Your task to perform on an android device: turn on improve location accuracy Image 0: 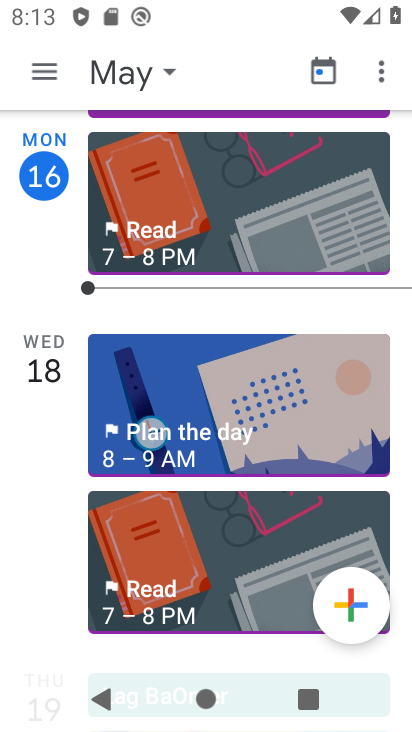
Step 0: press home button
Your task to perform on an android device: turn on improve location accuracy Image 1: 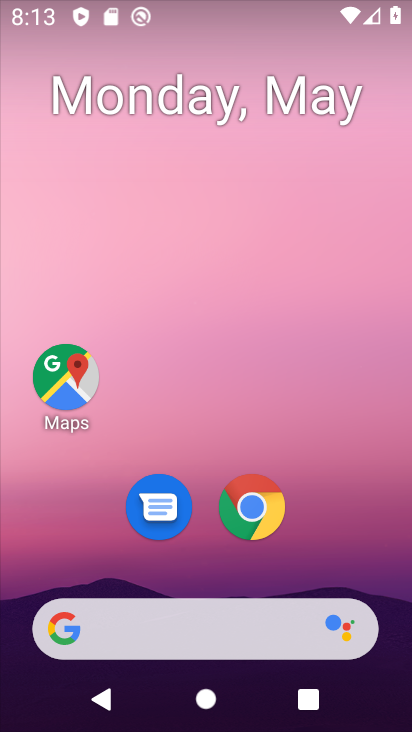
Step 1: drag from (219, 570) to (247, 7)
Your task to perform on an android device: turn on improve location accuracy Image 2: 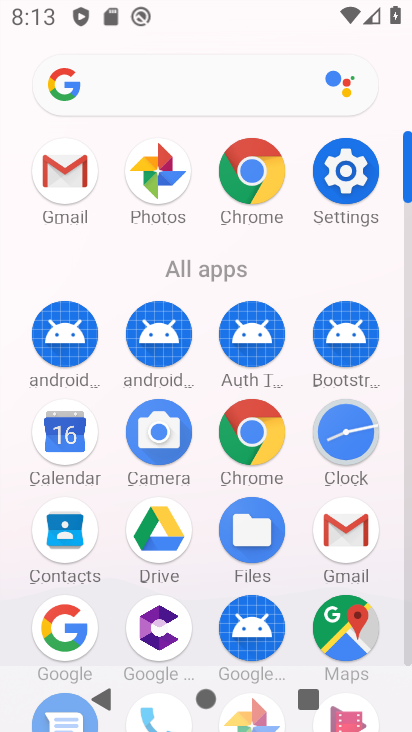
Step 2: click (352, 192)
Your task to perform on an android device: turn on improve location accuracy Image 3: 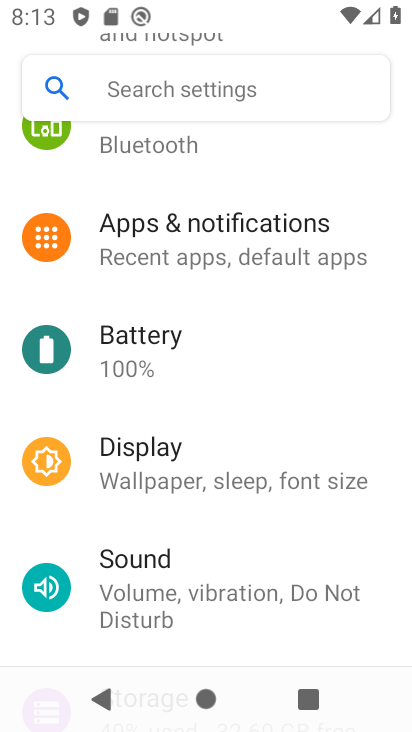
Step 3: drag from (183, 543) to (304, 94)
Your task to perform on an android device: turn on improve location accuracy Image 4: 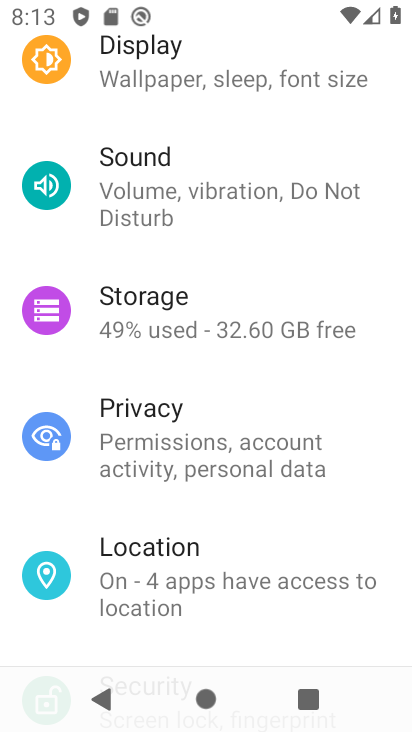
Step 4: click (193, 543)
Your task to perform on an android device: turn on improve location accuracy Image 5: 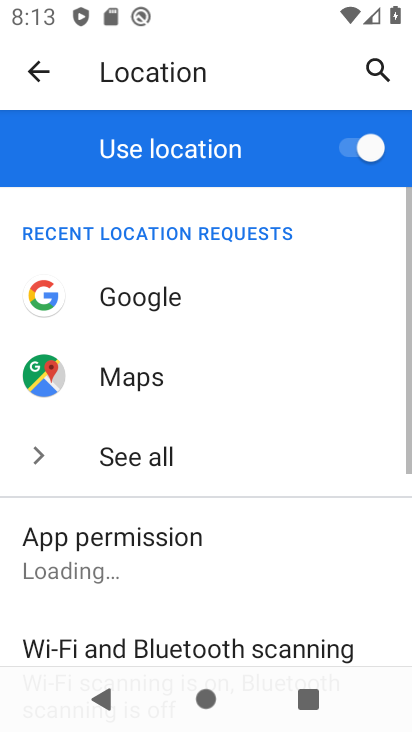
Step 5: drag from (204, 586) to (262, 291)
Your task to perform on an android device: turn on improve location accuracy Image 6: 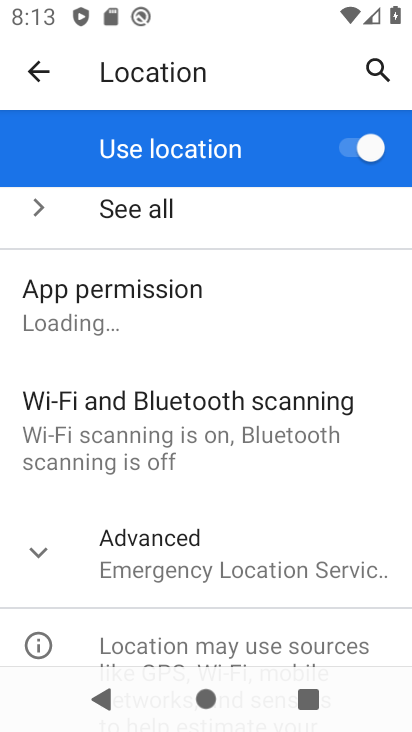
Step 6: click (199, 560)
Your task to perform on an android device: turn on improve location accuracy Image 7: 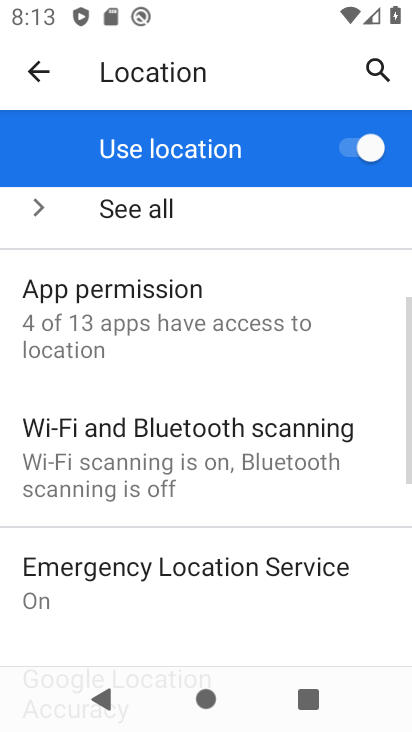
Step 7: drag from (216, 540) to (249, 260)
Your task to perform on an android device: turn on improve location accuracy Image 8: 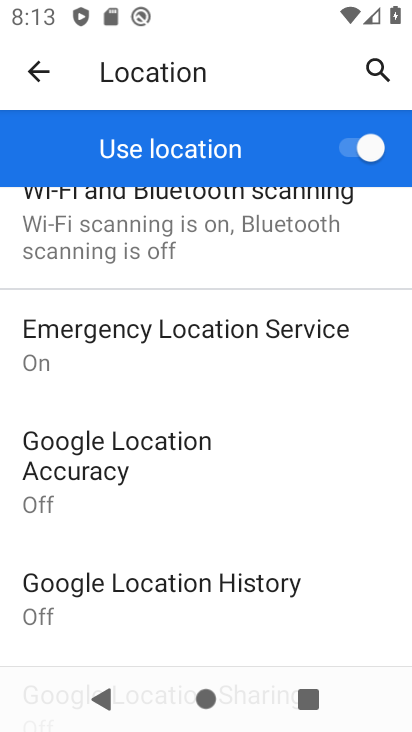
Step 8: click (138, 473)
Your task to perform on an android device: turn on improve location accuracy Image 9: 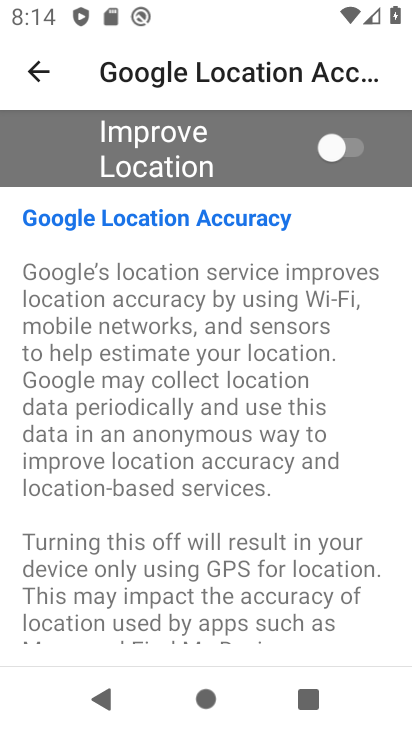
Step 9: click (370, 125)
Your task to perform on an android device: turn on improve location accuracy Image 10: 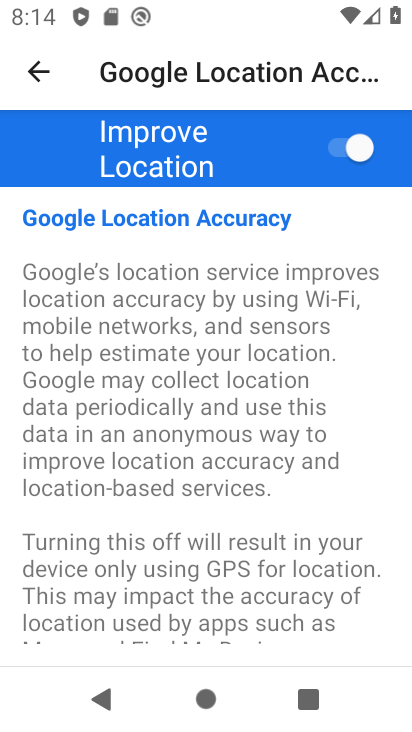
Step 10: task complete